Your task to perform on an android device: Open Android settings Image 0: 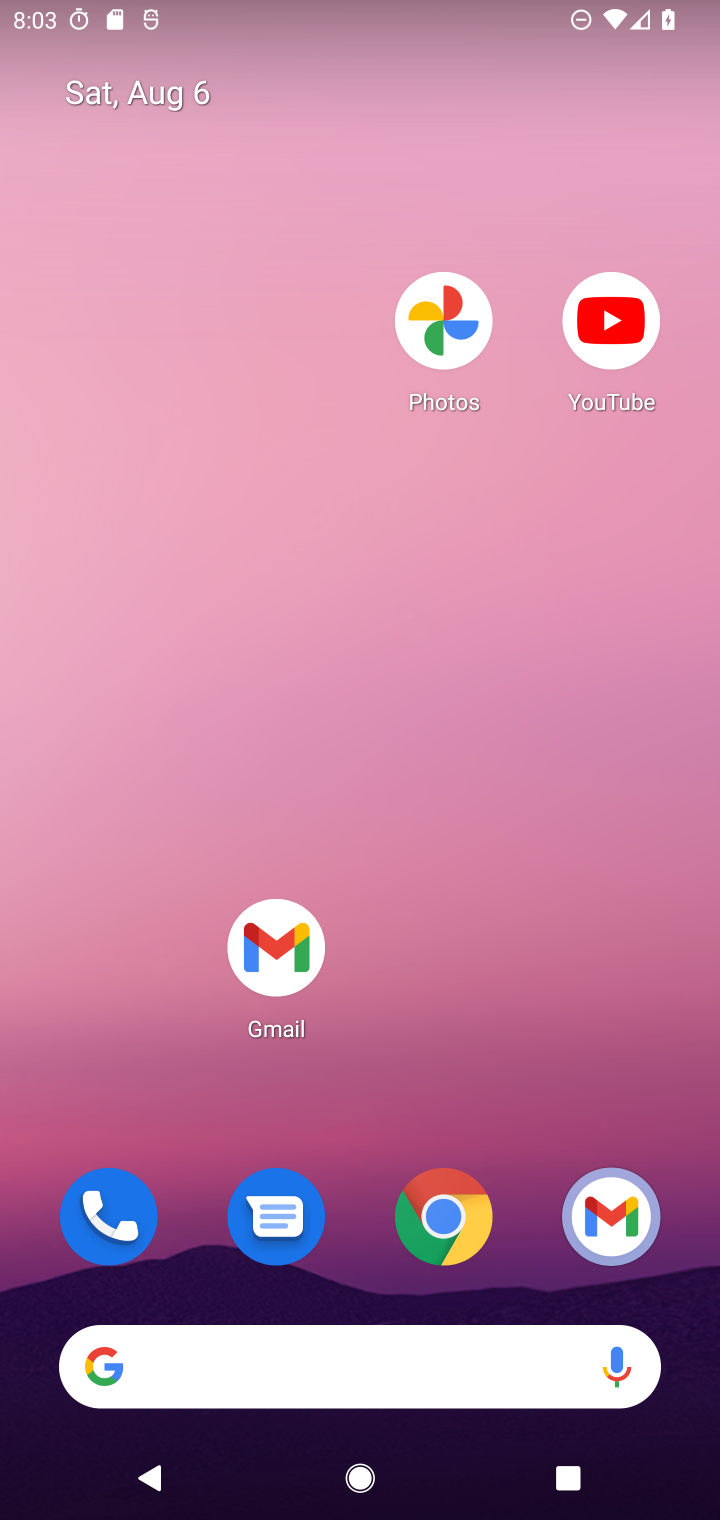
Step 0: drag from (472, 1112) to (361, 300)
Your task to perform on an android device: Open Android settings Image 1: 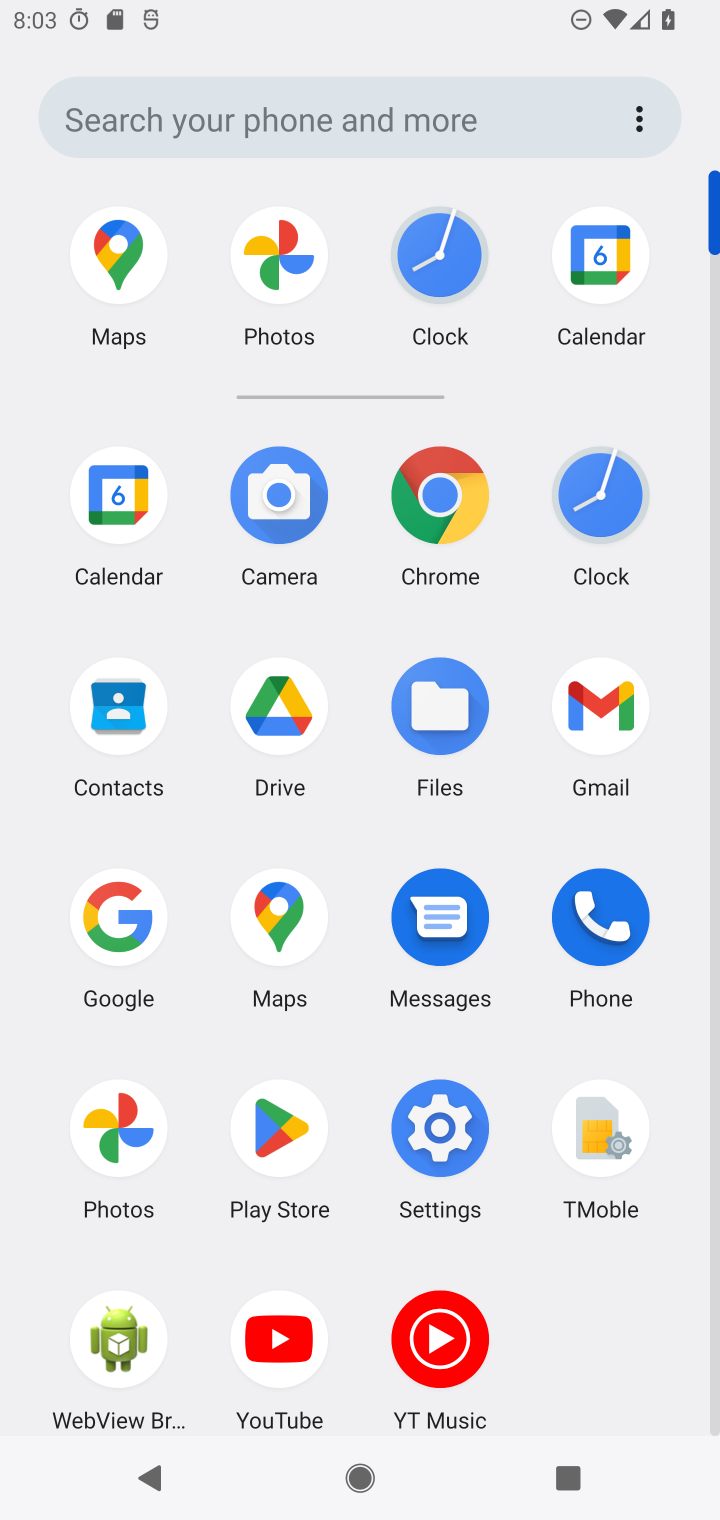
Step 1: click (433, 1129)
Your task to perform on an android device: Open Android settings Image 2: 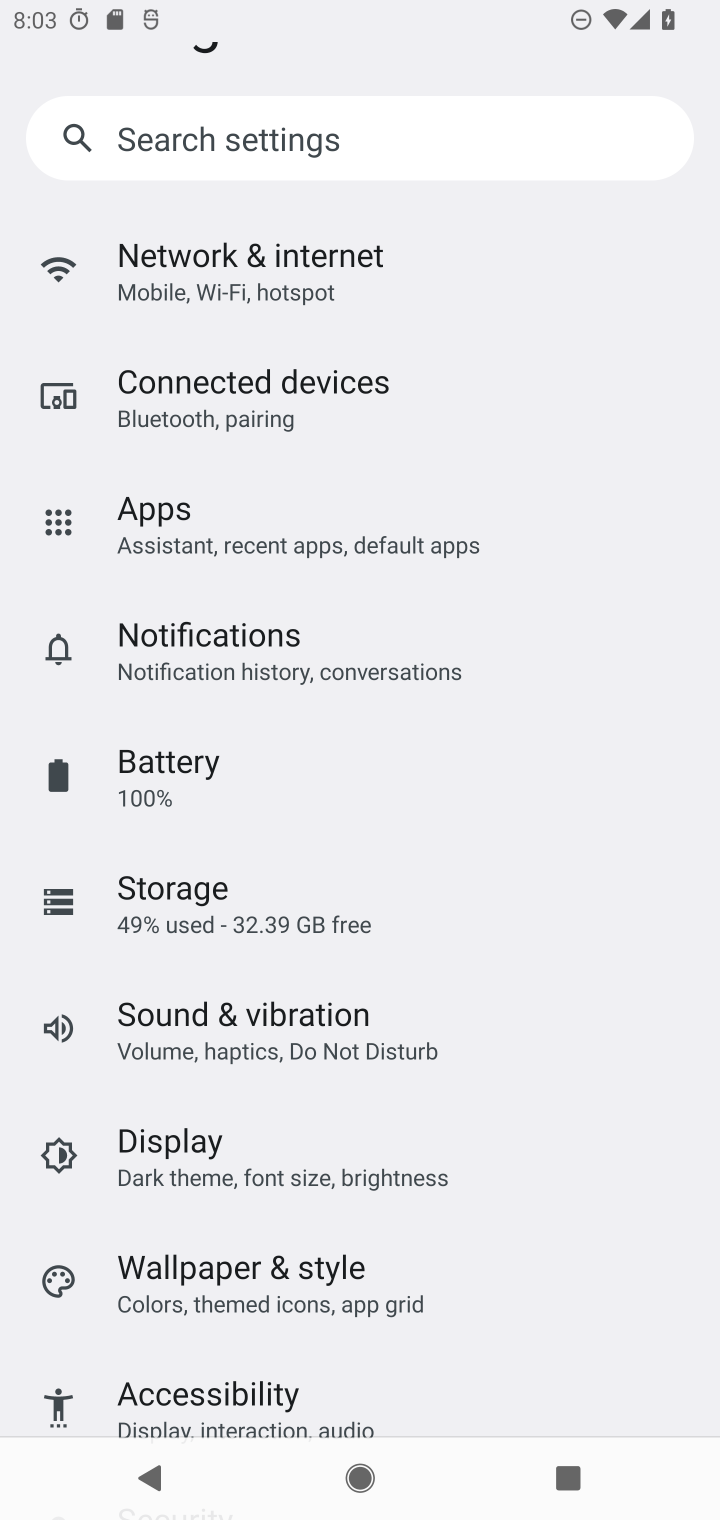
Step 2: task complete